Your task to perform on an android device: open wifi settings Image 0: 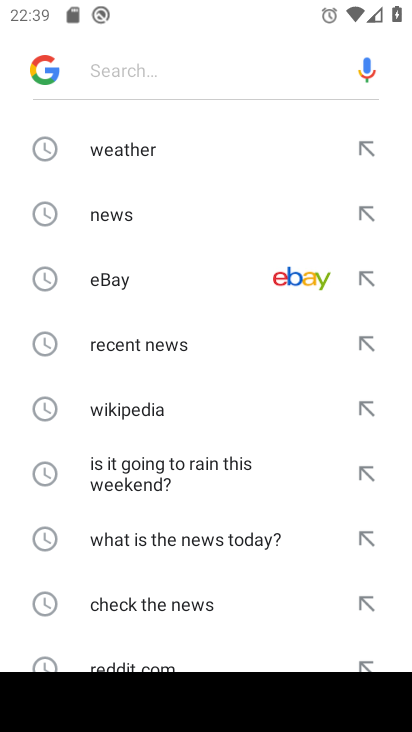
Step 0: press home button
Your task to perform on an android device: open wifi settings Image 1: 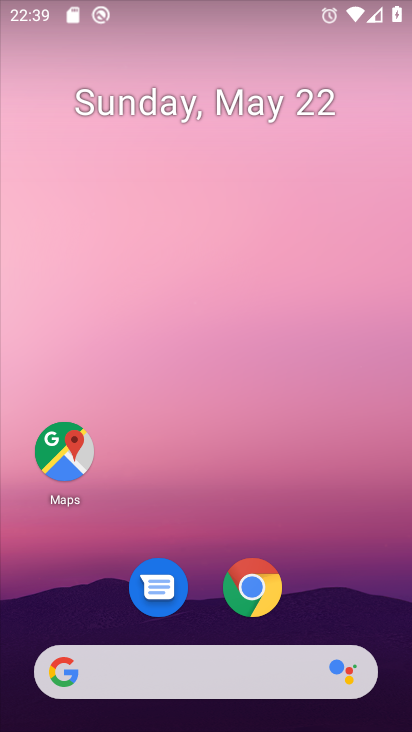
Step 1: drag from (246, 459) to (237, 16)
Your task to perform on an android device: open wifi settings Image 2: 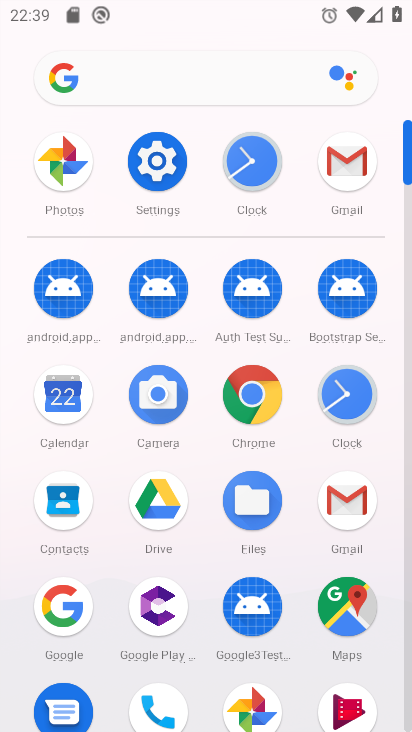
Step 2: click (169, 164)
Your task to perform on an android device: open wifi settings Image 3: 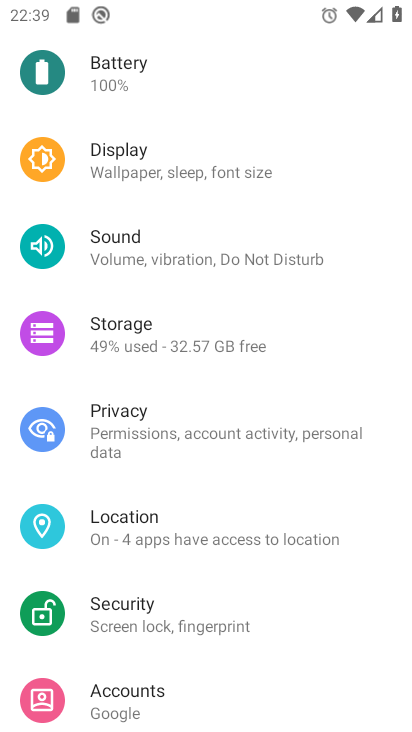
Step 3: drag from (167, 231) to (213, 495)
Your task to perform on an android device: open wifi settings Image 4: 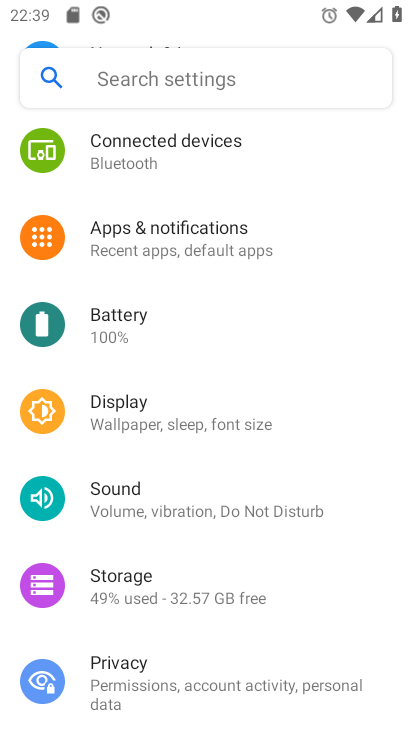
Step 4: drag from (223, 273) to (222, 450)
Your task to perform on an android device: open wifi settings Image 5: 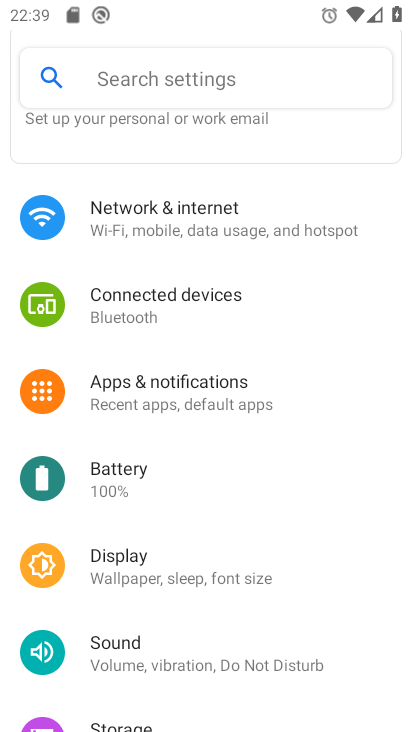
Step 5: drag from (207, 315) to (194, 547)
Your task to perform on an android device: open wifi settings Image 6: 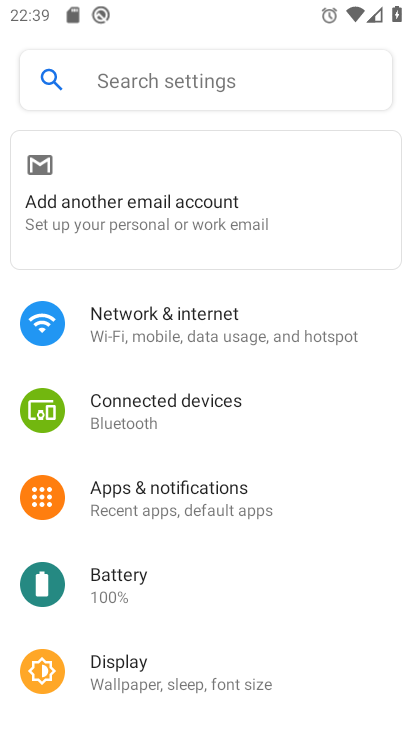
Step 6: click (201, 329)
Your task to perform on an android device: open wifi settings Image 7: 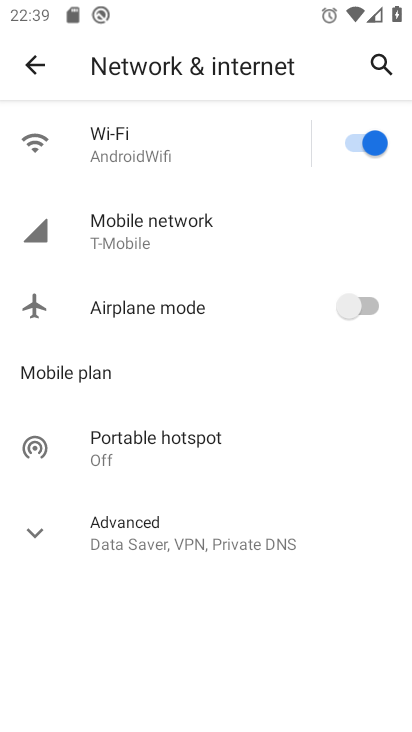
Step 7: click (207, 144)
Your task to perform on an android device: open wifi settings Image 8: 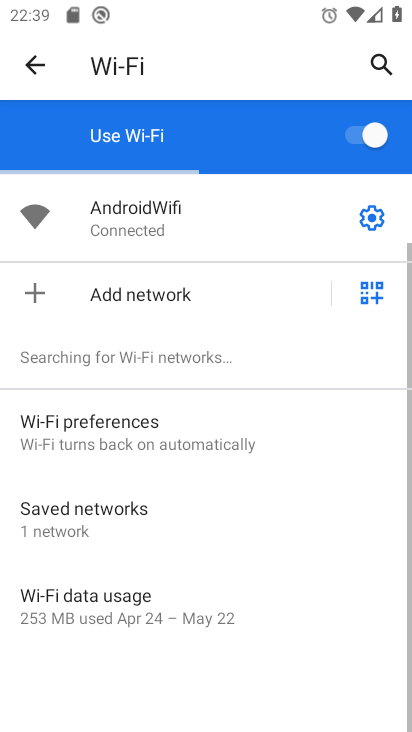
Step 8: task complete